Your task to perform on an android device: Open the Play Movies app and select the watchlist tab. Image 0: 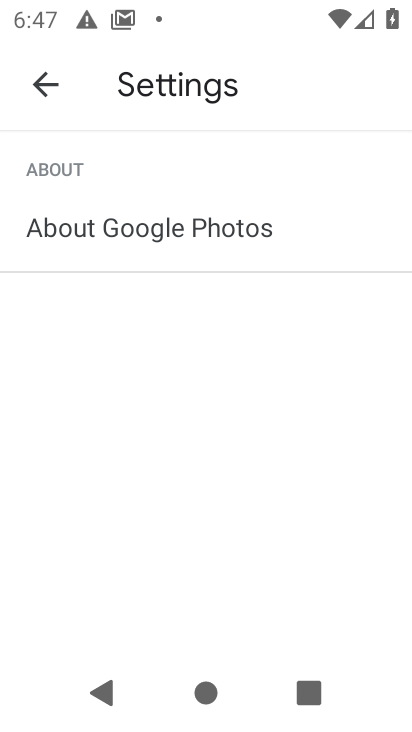
Step 0: press home button
Your task to perform on an android device: Open the Play Movies app and select the watchlist tab. Image 1: 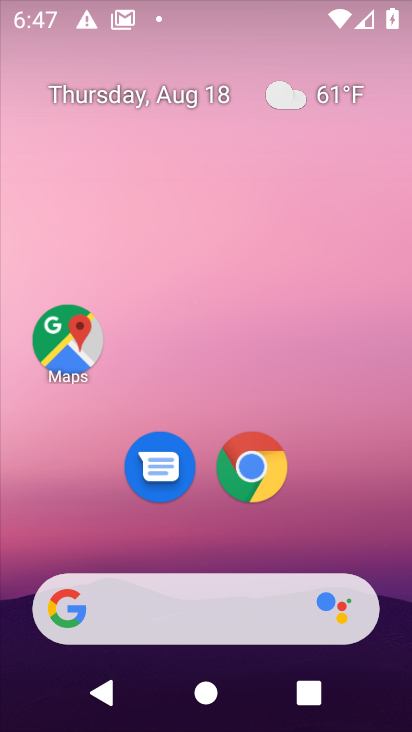
Step 1: task complete